Your task to perform on an android device: Find coffee shops on Maps Image 0: 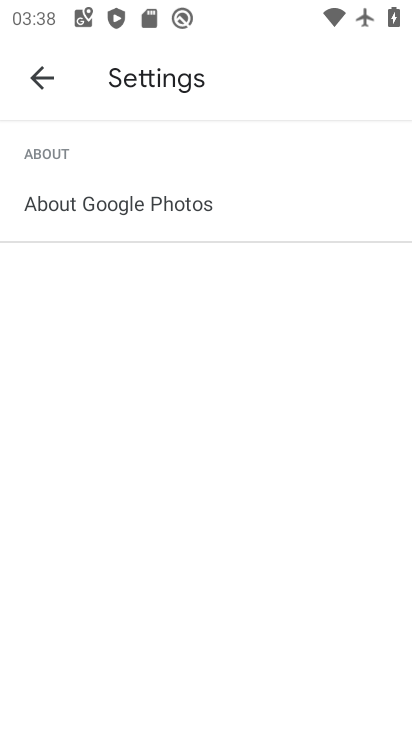
Step 0: press home button
Your task to perform on an android device: Find coffee shops on Maps Image 1: 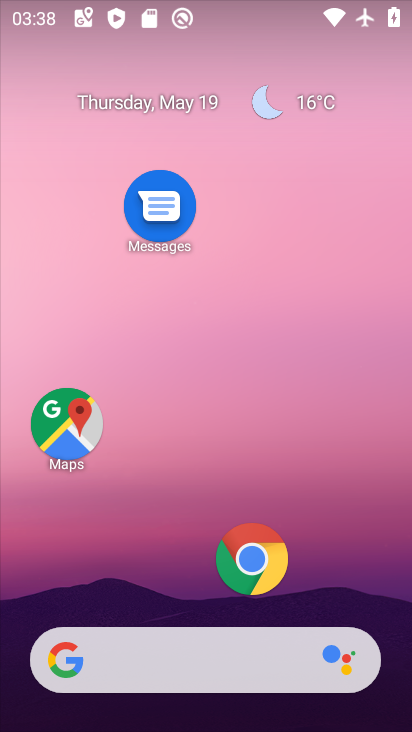
Step 1: click (33, 448)
Your task to perform on an android device: Find coffee shops on Maps Image 2: 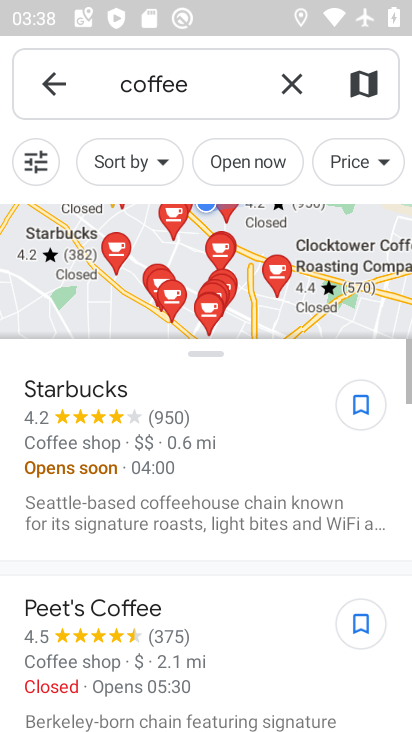
Step 2: click (284, 85)
Your task to perform on an android device: Find coffee shops on Maps Image 3: 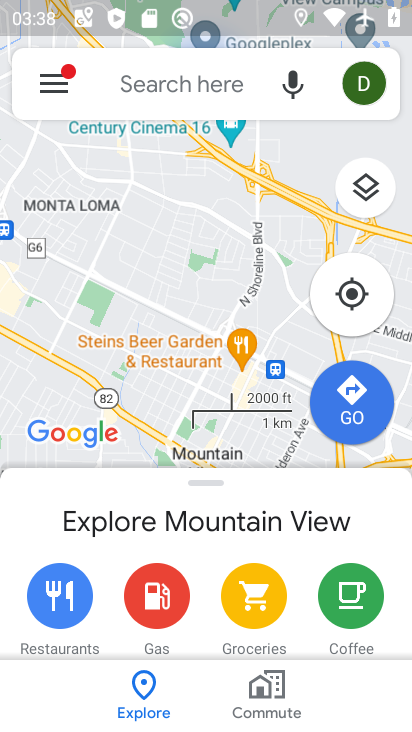
Step 3: click (178, 95)
Your task to perform on an android device: Find coffee shops on Maps Image 4: 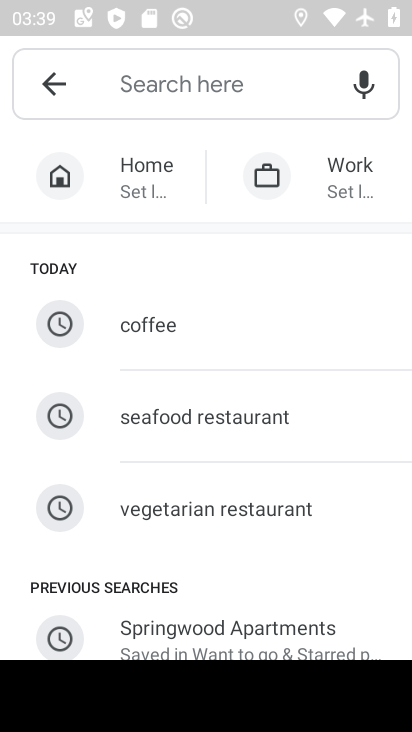
Step 4: type "coffee shops"
Your task to perform on an android device: Find coffee shops on Maps Image 5: 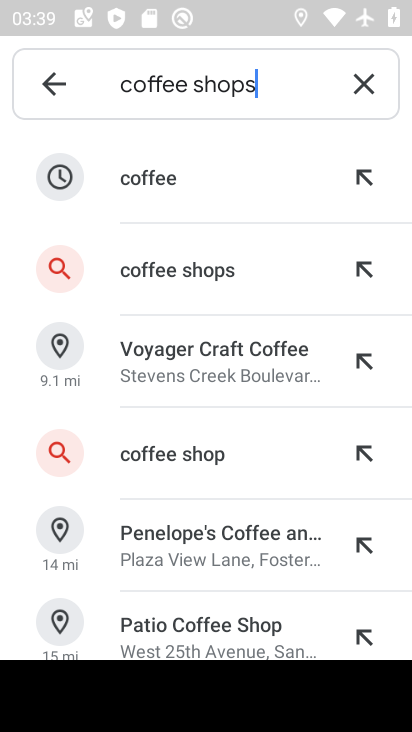
Step 5: click (225, 261)
Your task to perform on an android device: Find coffee shops on Maps Image 6: 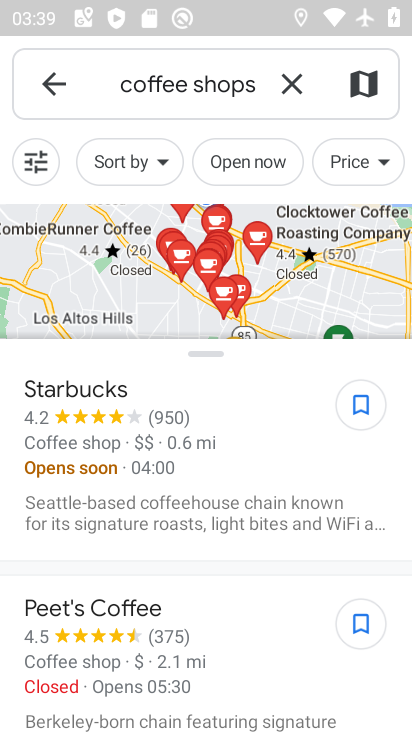
Step 6: task complete